Your task to perform on an android device: Go to wifi settings Image 0: 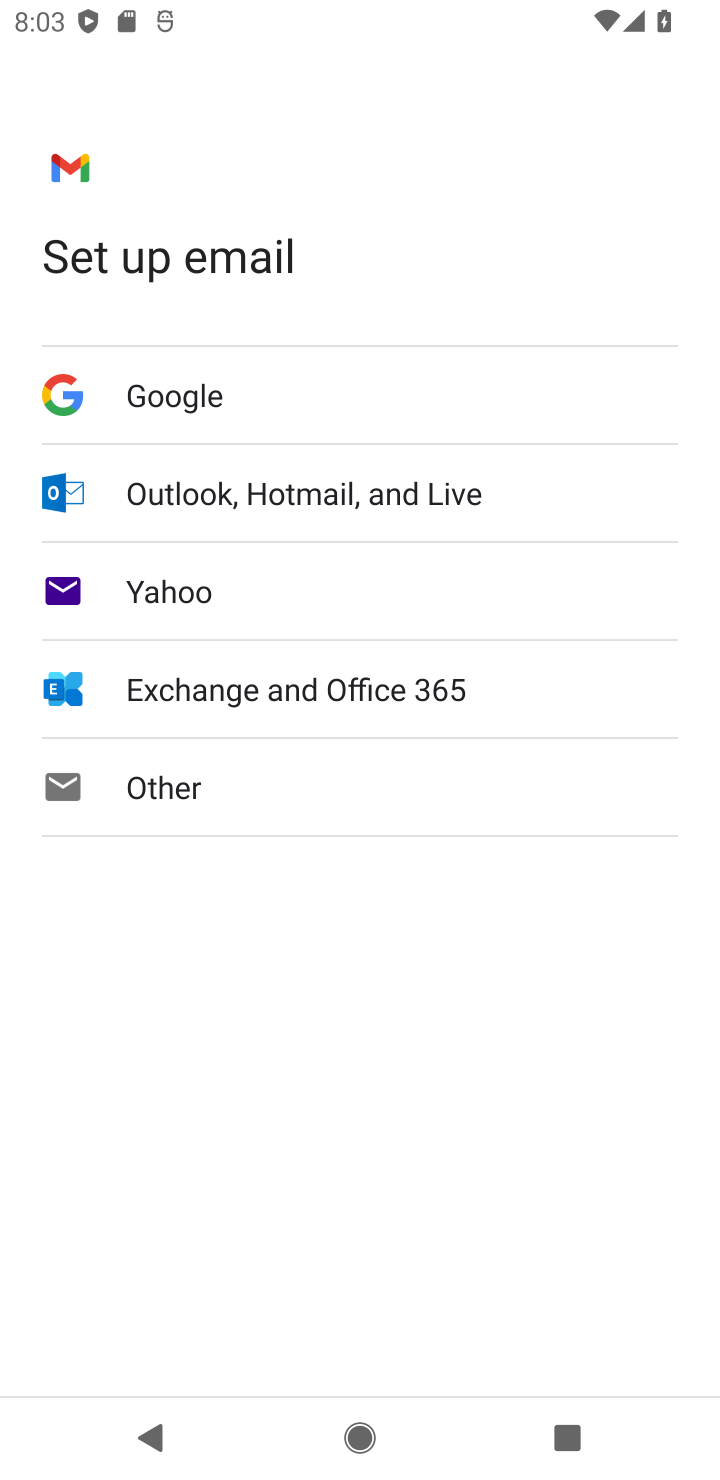
Step 0: drag from (537, 1) to (196, 992)
Your task to perform on an android device: Go to wifi settings Image 1: 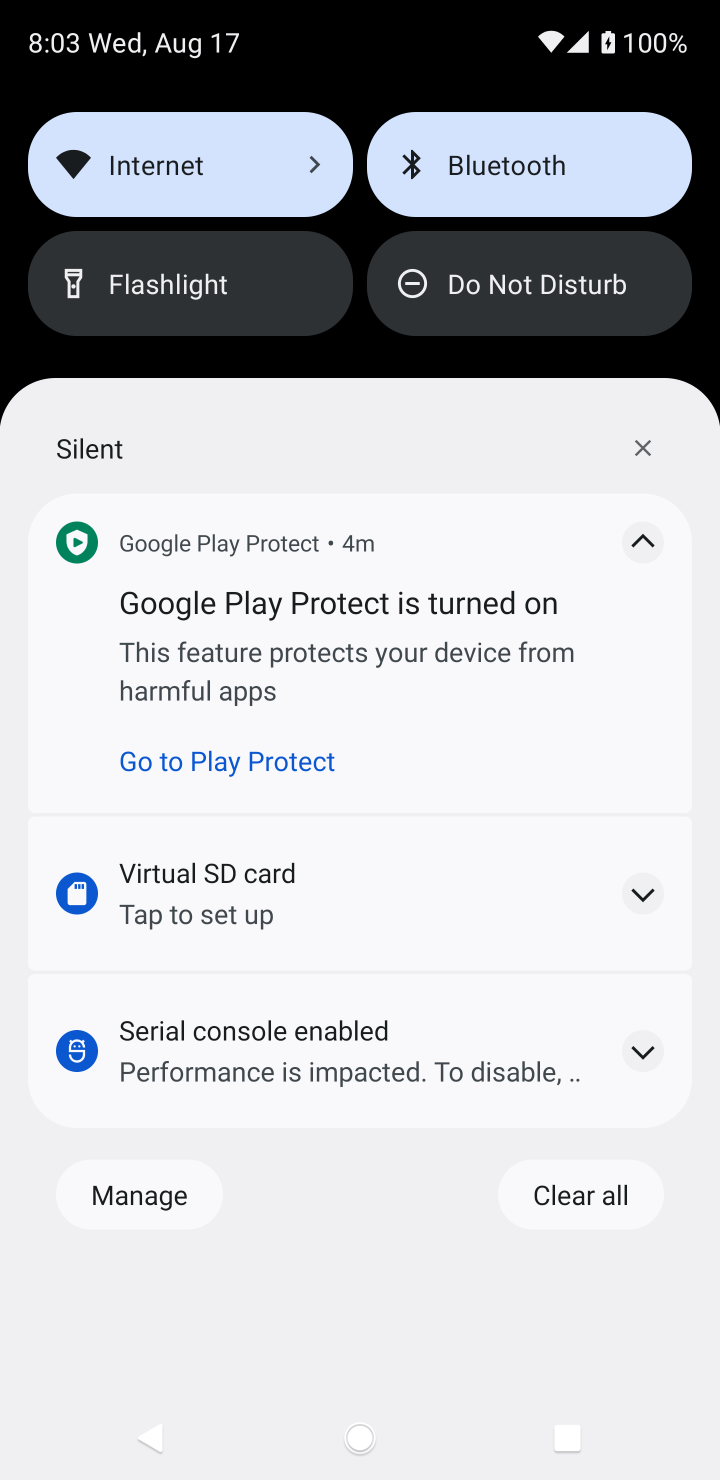
Step 1: click (224, 173)
Your task to perform on an android device: Go to wifi settings Image 2: 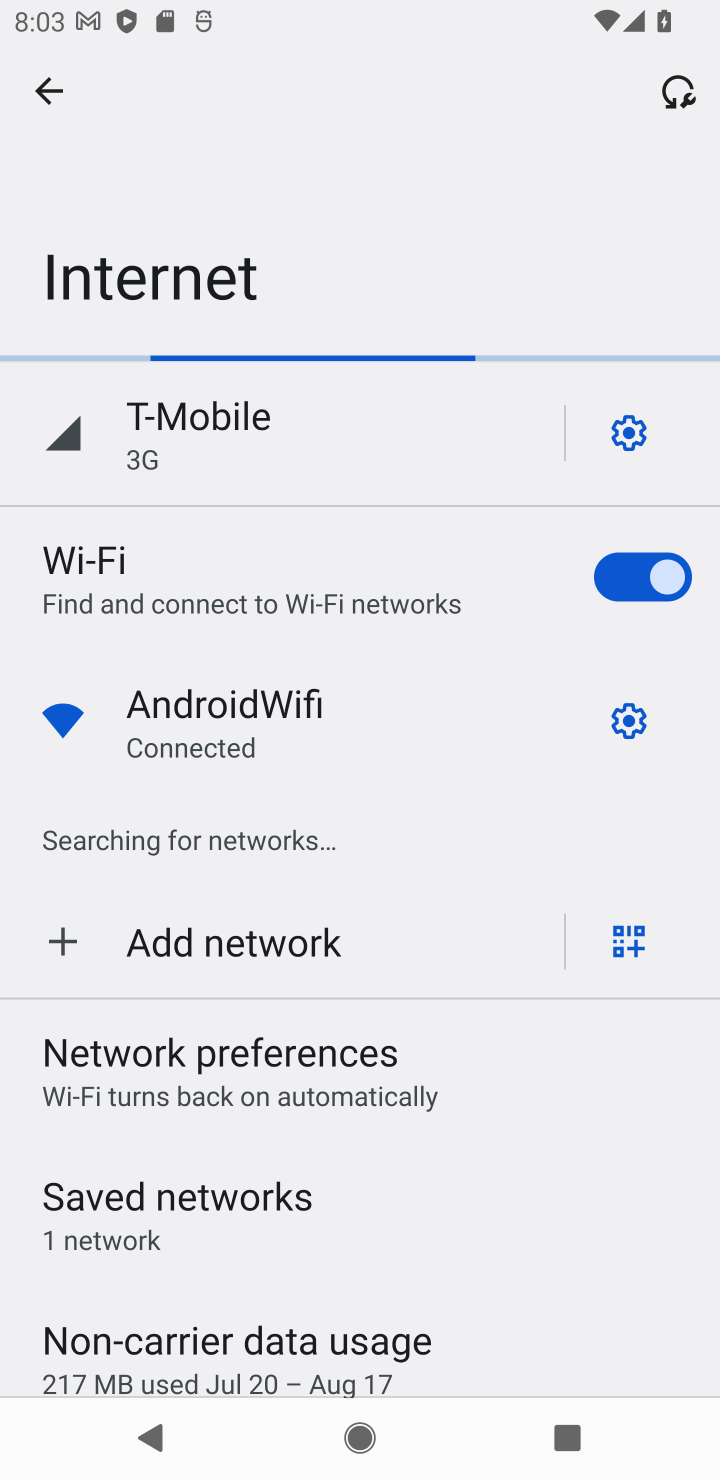
Step 2: task complete